Your task to perform on an android device: Go to Android settings Image 0: 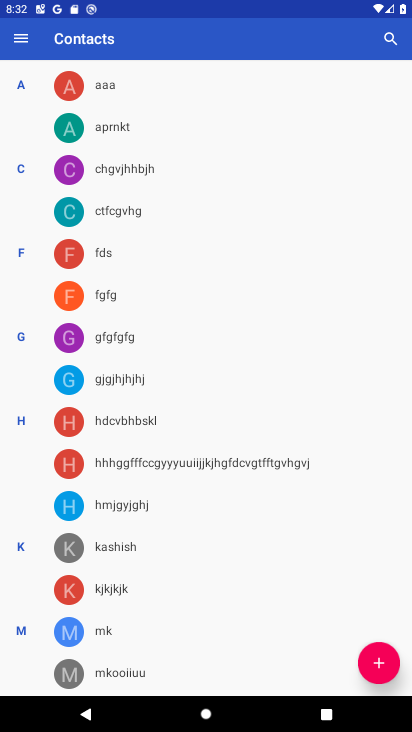
Step 0: press home button
Your task to perform on an android device: Go to Android settings Image 1: 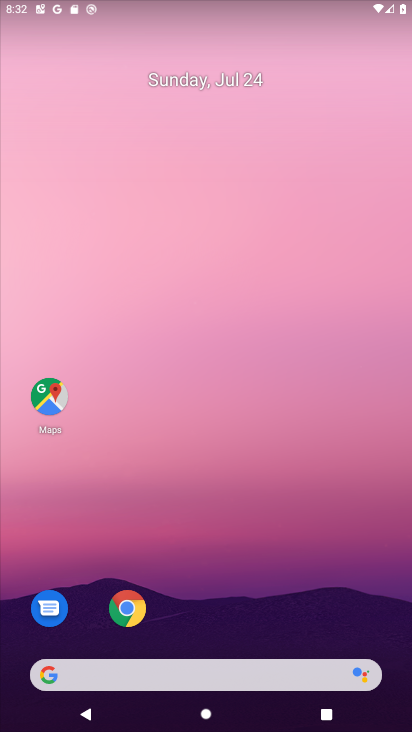
Step 1: drag from (202, 610) to (240, 69)
Your task to perform on an android device: Go to Android settings Image 2: 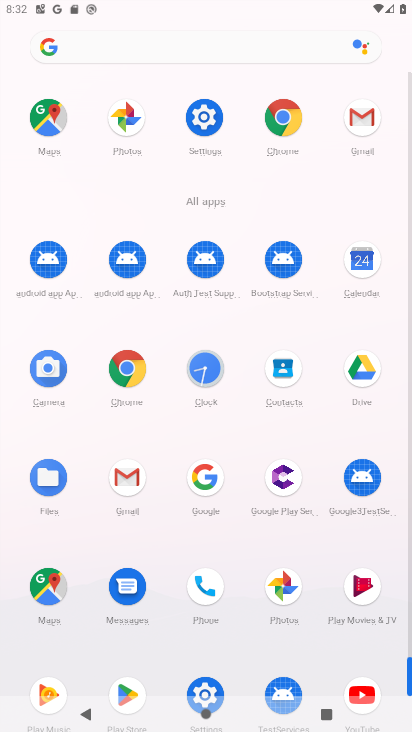
Step 2: click (196, 113)
Your task to perform on an android device: Go to Android settings Image 3: 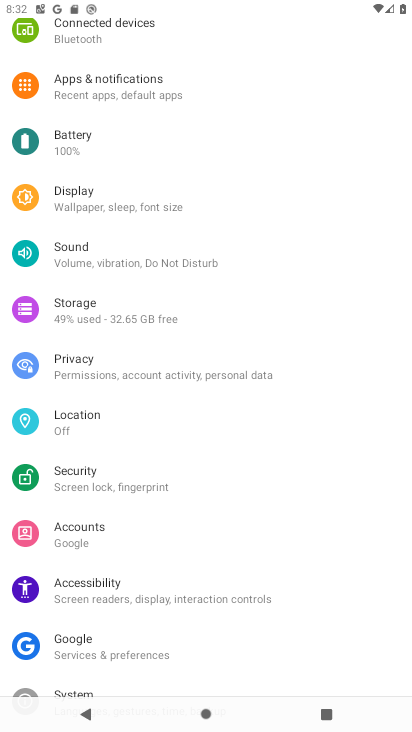
Step 3: task complete